Your task to perform on an android device: Search for seafood restaurants on Google Maps Image 0: 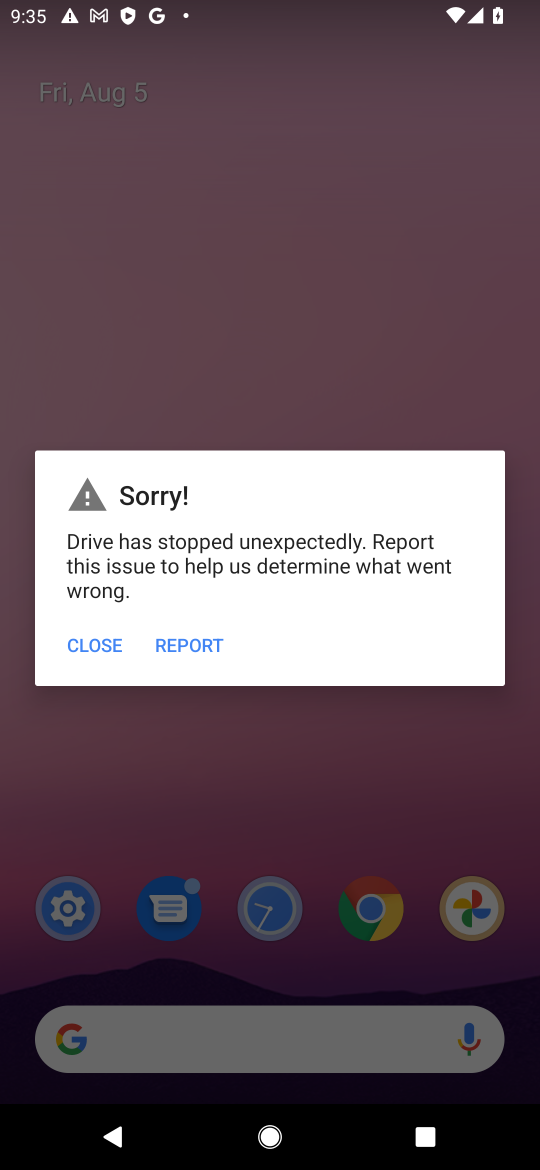
Step 0: press home button
Your task to perform on an android device: Search for seafood restaurants on Google Maps Image 1: 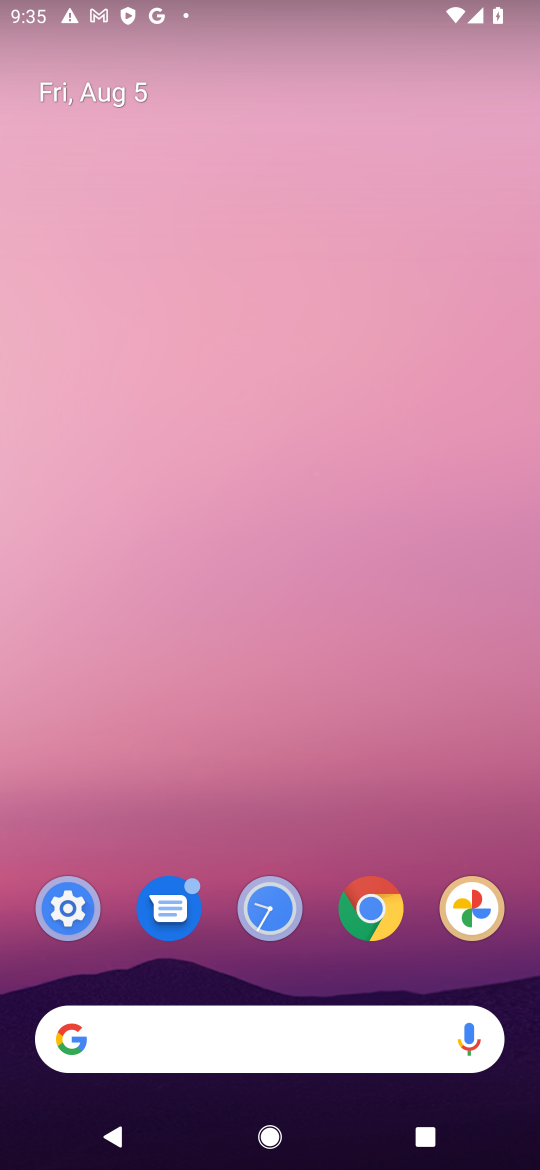
Step 1: drag from (285, 759) to (270, 103)
Your task to perform on an android device: Search for seafood restaurants on Google Maps Image 2: 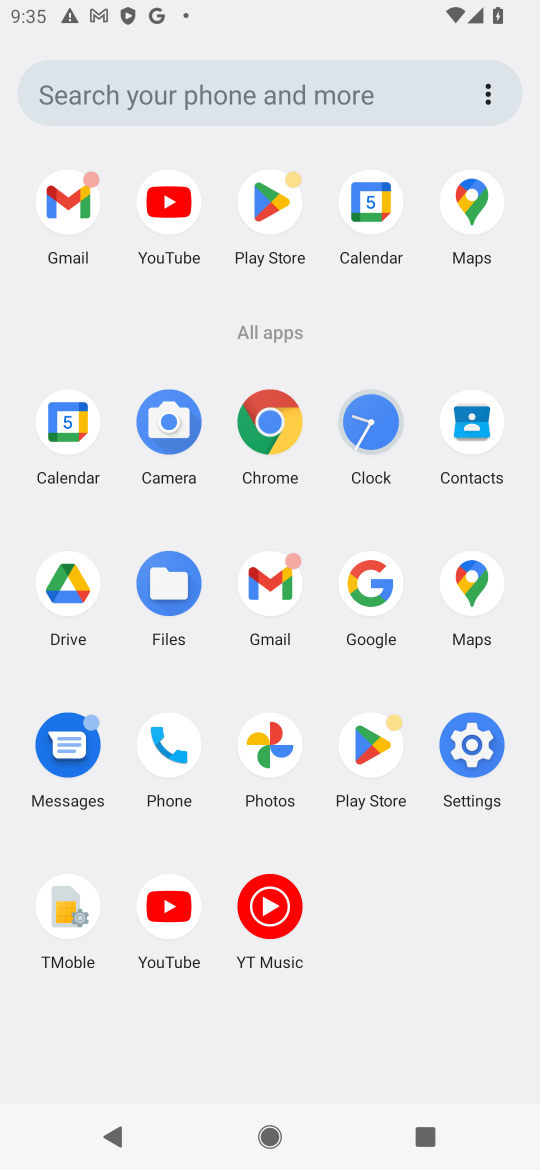
Step 2: click (470, 573)
Your task to perform on an android device: Search for seafood restaurants on Google Maps Image 3: 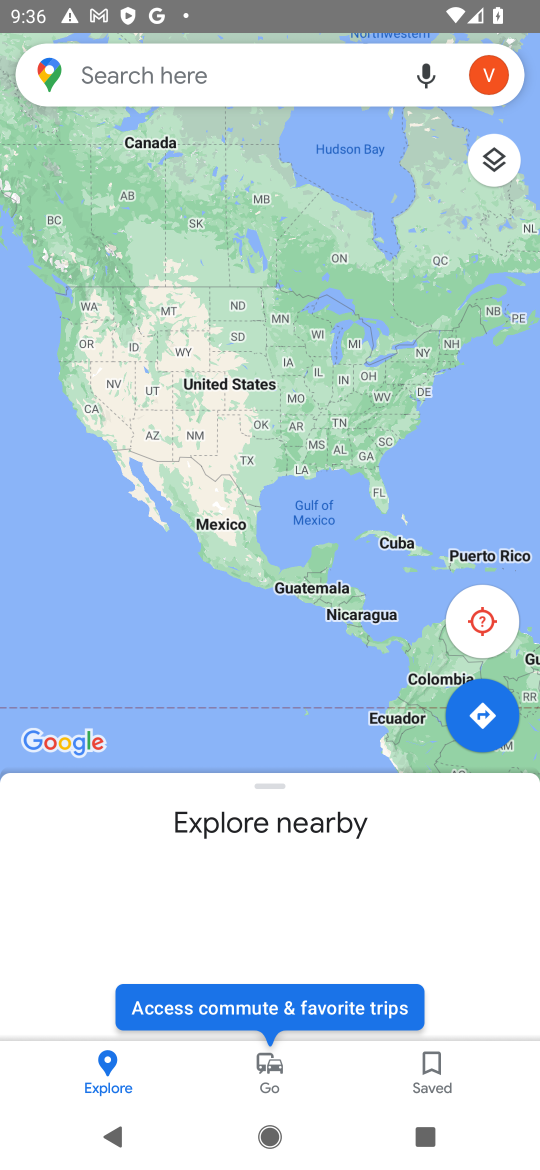
Step 3: task complete